Your task to perform on an android device: turn off wifi Image 0: 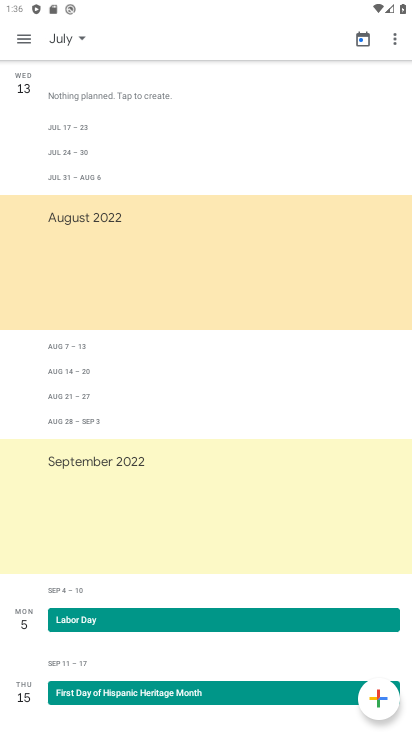
Step 0: press home button
Your task to perform on an android device: turn off wifi Image 1: 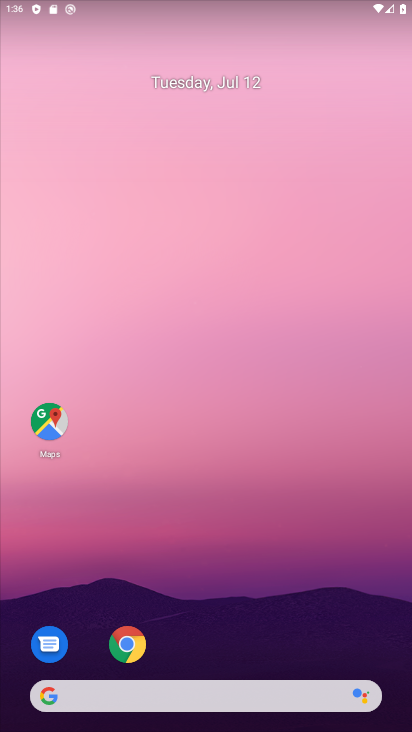
Step 1: drag from (188, 666) to (109, 92)
Your task to perform on an android device: turn off wifi Image 2: 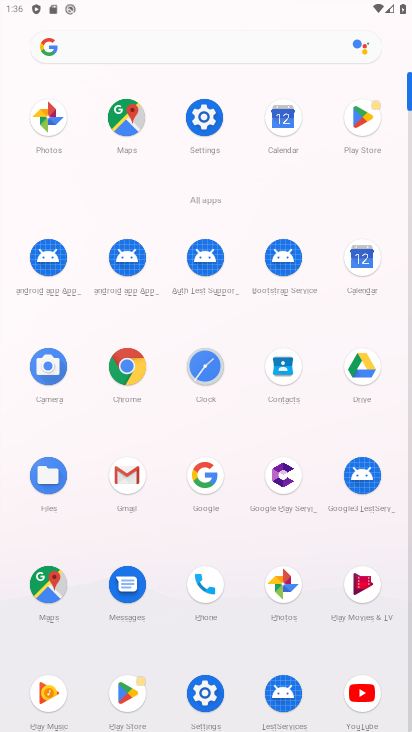
Step 2: click (205, 121)
Your task to perform on an android device: turn off wifi Image 3: 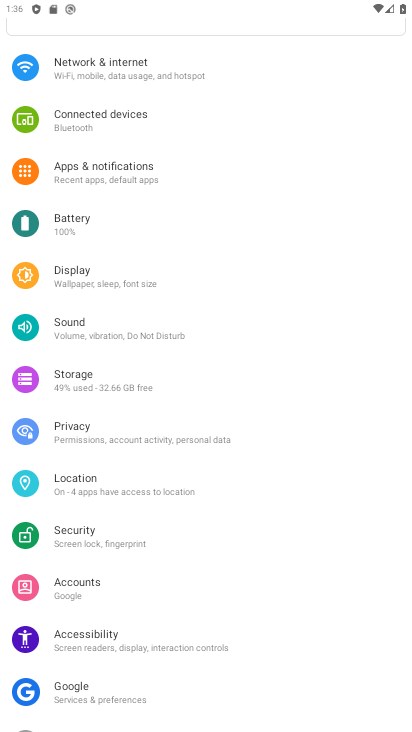
Step 3: click (91, 80)
Your task to perform on an android device: turn off wifi Image 4: 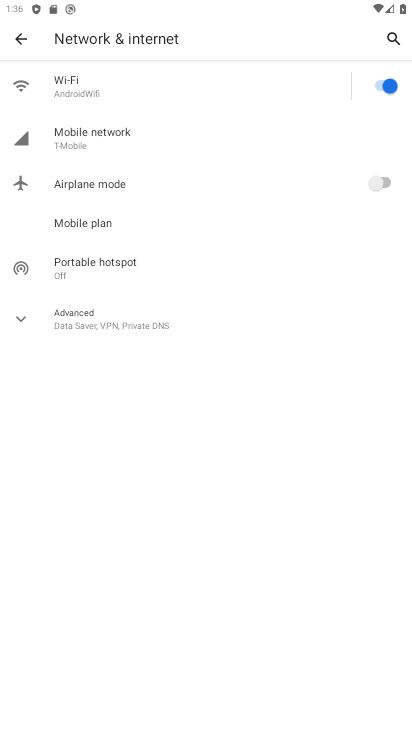
Step 4: click (107, 96)
Your task to perform on an android device: turn off wifi Image 5: 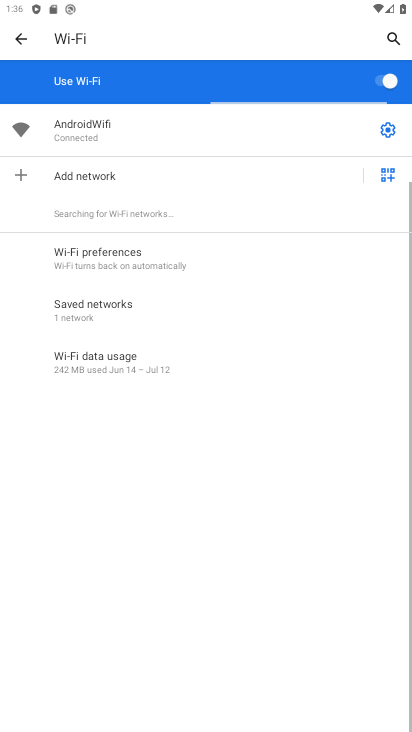
Step 5: click (393, 75)
Your task to perform on an android device: turn off wifi Image 6: 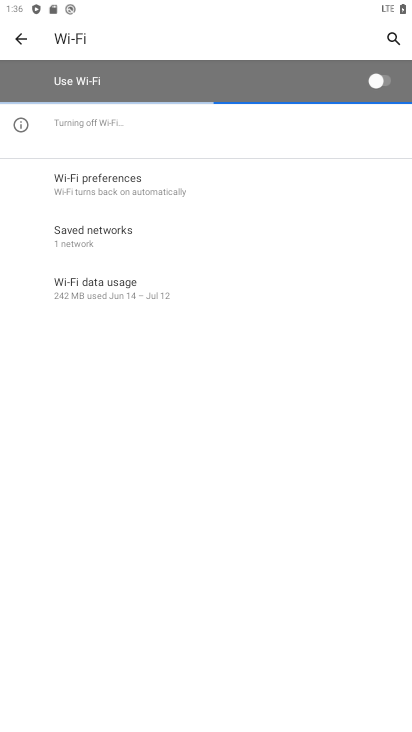
Step 6: task complete